Your task to perform on an android device: Show me popular games on the Play Store Image 0: 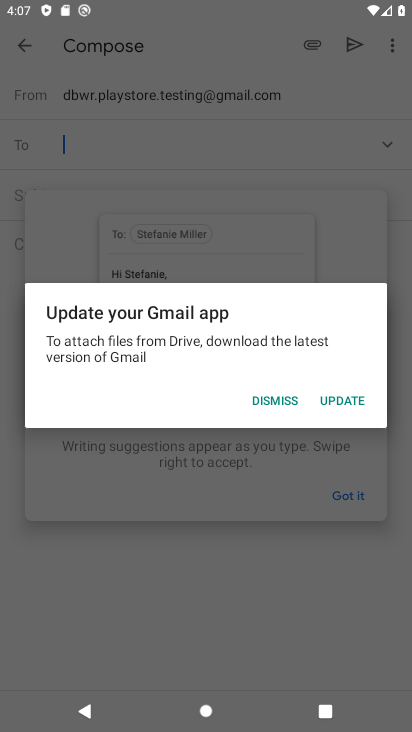
Step 0: press back button
Your task to perform on an android device: Show me popular games on the Play Store Image 1: 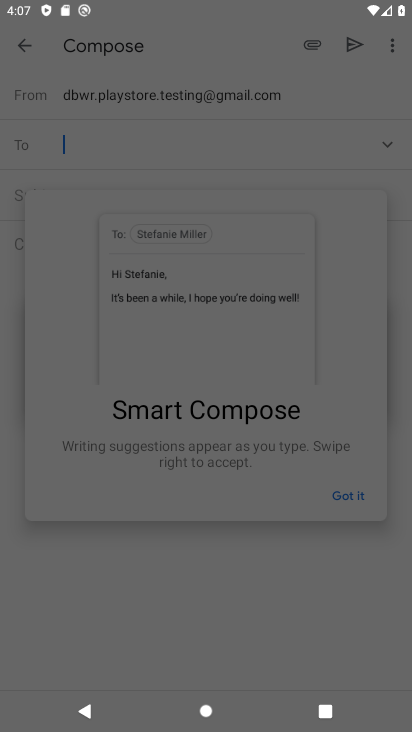
Step 1: press home button
Your task to perform on an android device: Show me popular games on the Play Store Image 2: 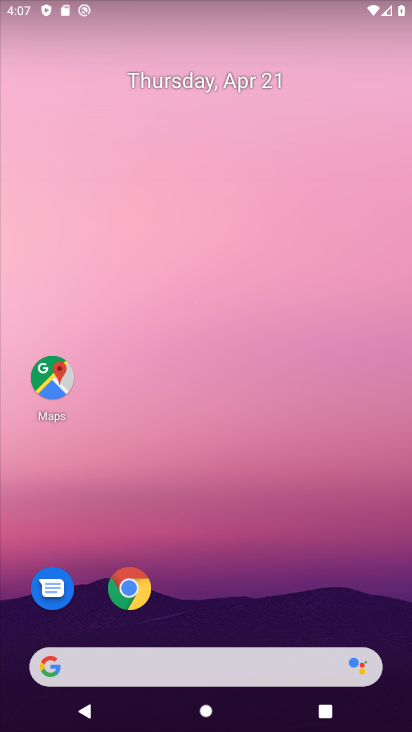
Step 2: drag from (241, 499) to (241, 176)
Your task to perform on an android device: Show me popular games on the Play Store Image 3: 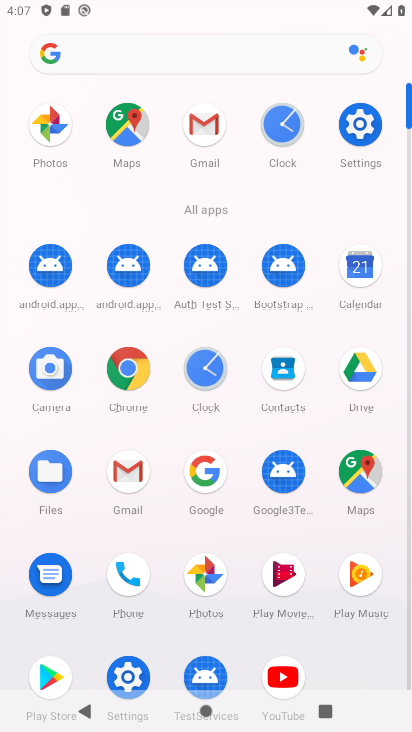
Step 3: click (40, 674)
Your task to perform on an android device: Show me popular games on the Play Store Image 4: 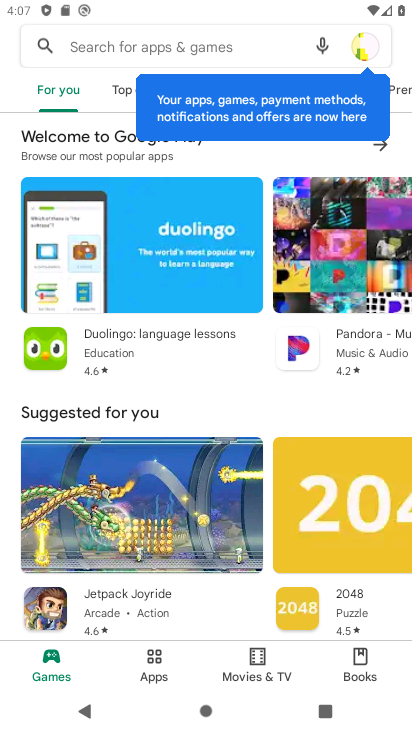
Step 4: drag from (169, 603) to (192, 341)
Your task to perform on an android device: Show me popular games on the Play Store Image 5: 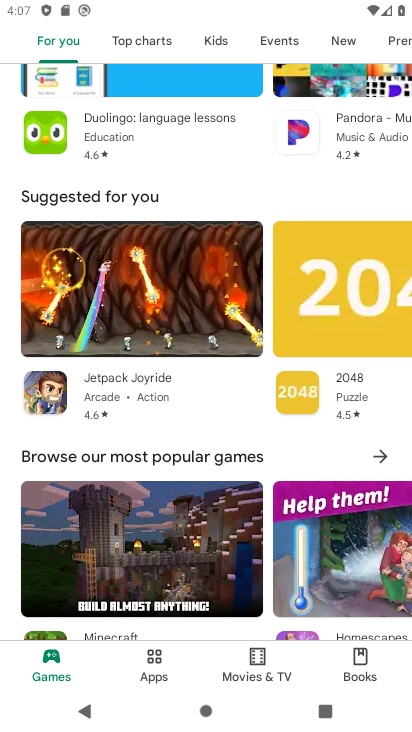
Step 5: click (183, 470)
Your task to perform on an android device: Show me popular games on the Play Store Image 6: 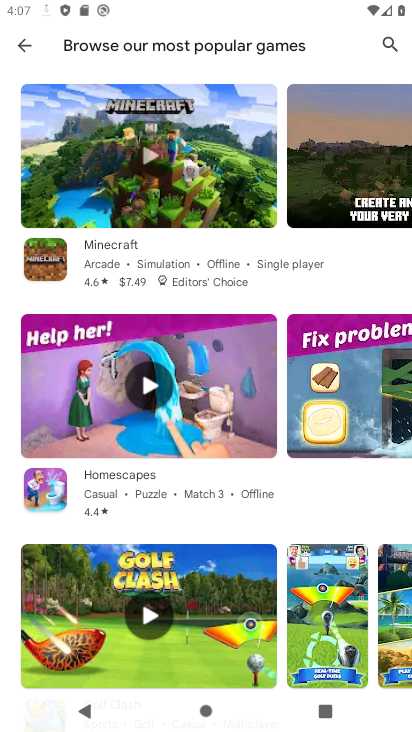
Step 6: task complete